Your task to perform on an android device: Go to notification settings Image 0: 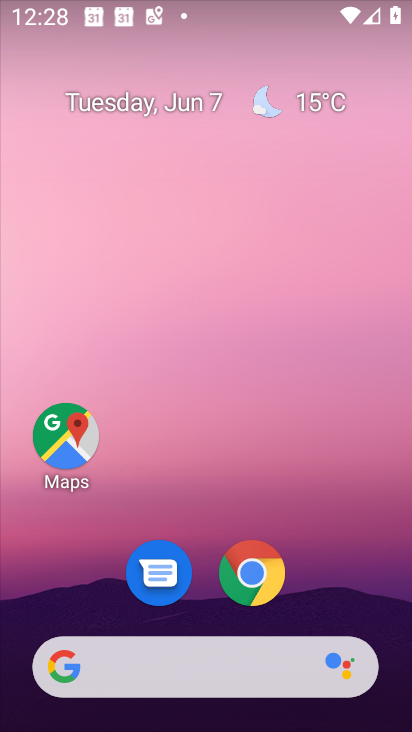
Step 0: press home button
Your task to perform on an android device: Go to notification settings Image 1: 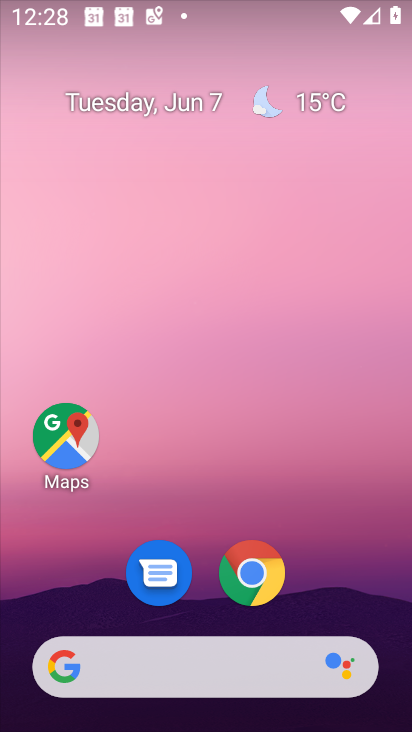
Step 1: drag from (346, 587) to (292, 186)
Your task to perform on an android device: Go to notification settings Image 2: 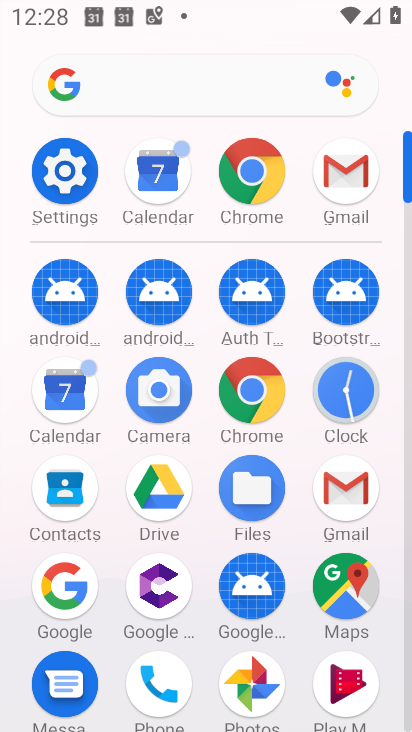
Step 2: click (54, 177)
Your task to perform on an android device: Go to notification settings Image 3: 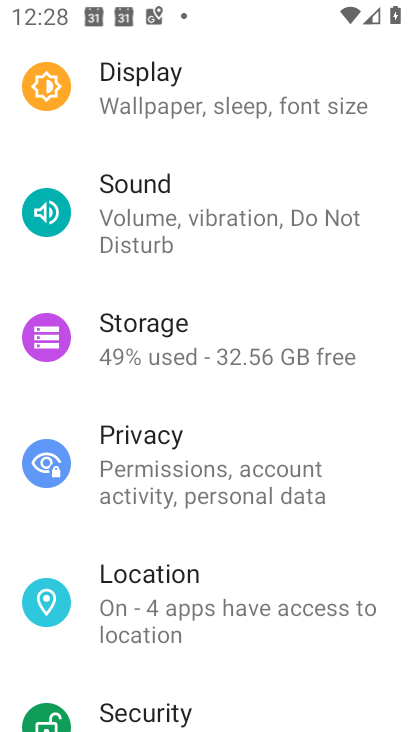
Step 3: drag from (380, 255) to (306, 688)
Your task to perform on an android device: Go to notification settings Image 4: 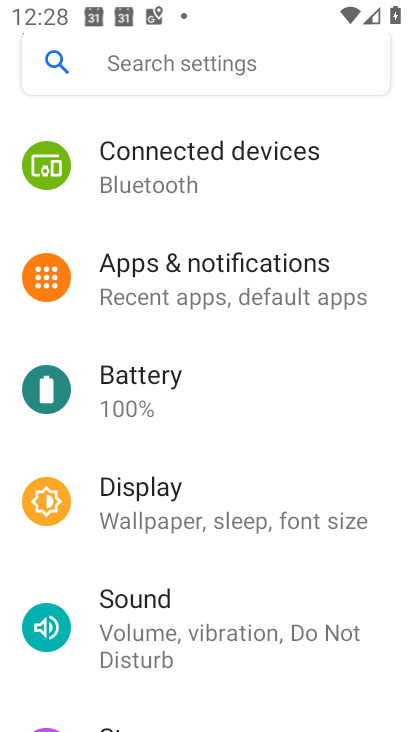
Step 4: click (221, 289)
Your task to perform on an android device: Go to notification settings Image 5: 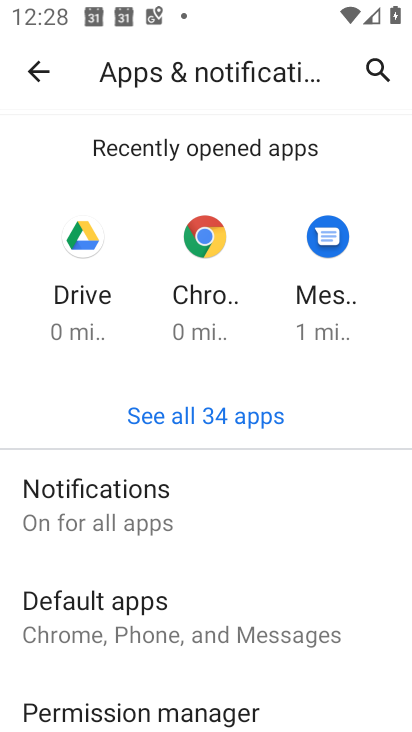
Step 5: task complete